Your task to perform on an android device: toggle improve location accuracy Image 0: 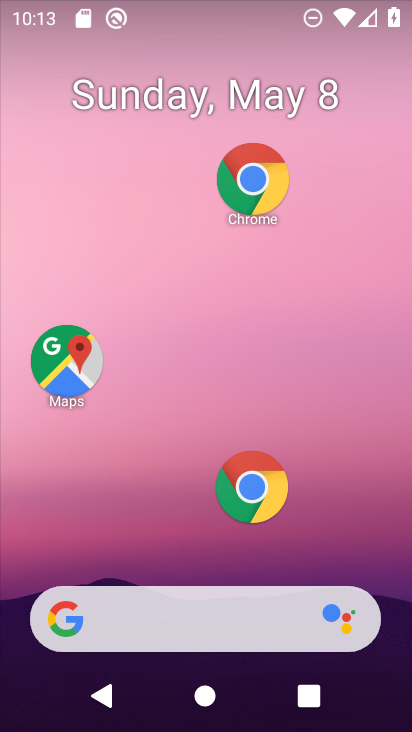
Step 0: drag from (181, 540) to (239, 21)
Your task to perform on an android device: toggle improve location accuracy Image 1: 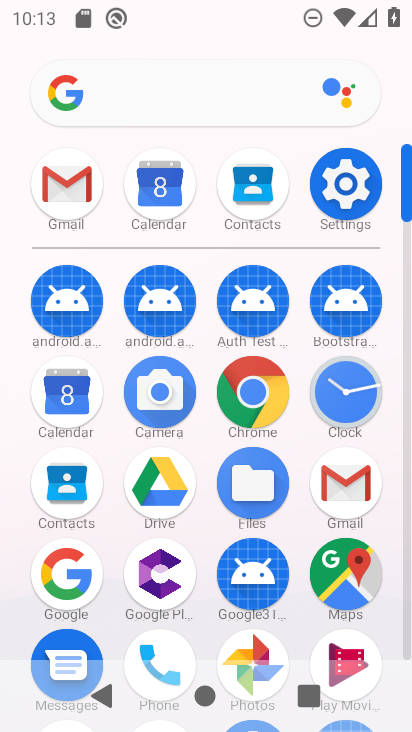
Step 1: click (344, 160)
Your task to perform on an android device: toggle improve location accuracy Image 2: 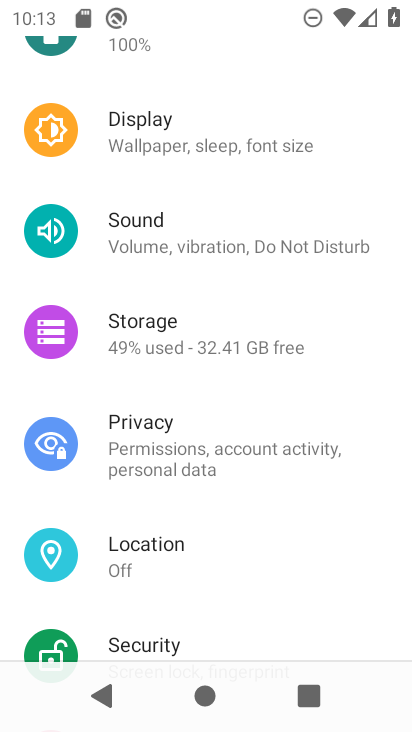
Step 2: click (250, 549)
Your task to perform on an android device: toggle improve location accuracy Image 3: 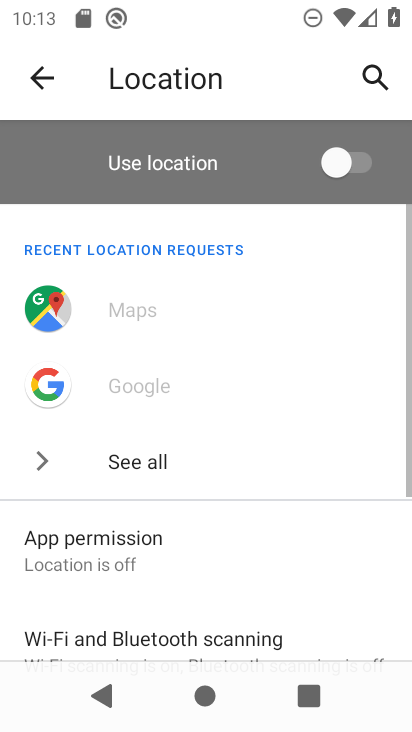
Step 3: drag from (226, 573) to (284, 44)
Your task to perform on an android device: toggle improve location accuracy Image 4: 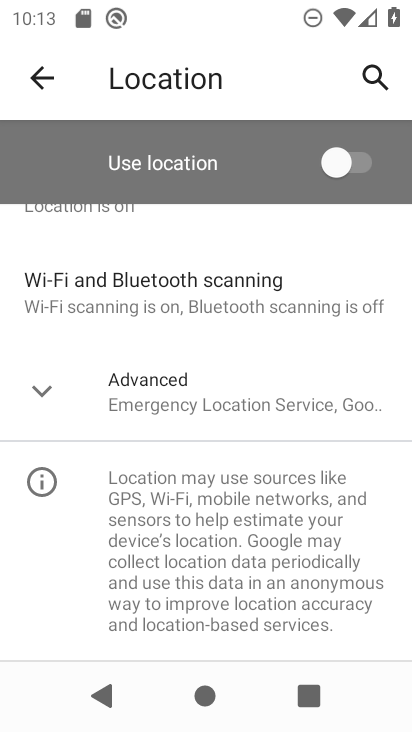
Step 4: click (45, 391)
Your task to perform on an android device: toggle improve location accuracy Image 5: 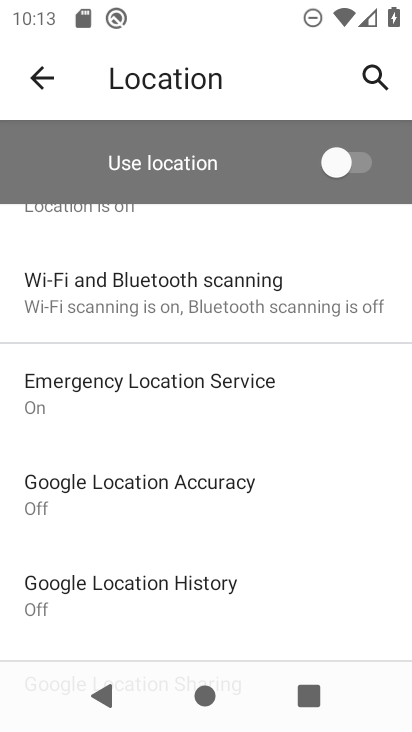
Step 5: click (207, 494)
Your task to perform on an android device: toggle improve location accuracy Image 6: 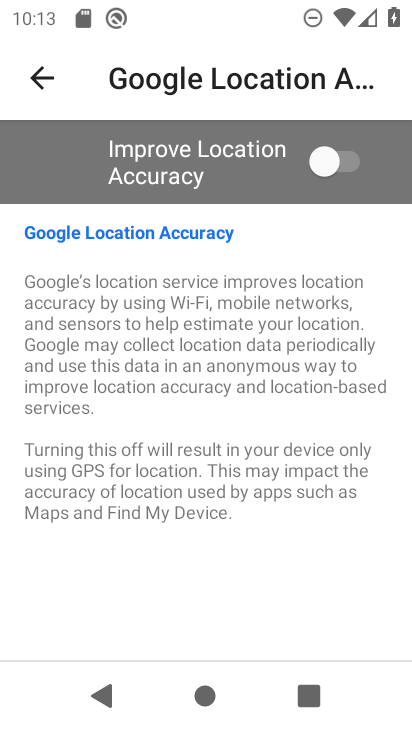
Step 6: click (346, 150)
Your task to perform on an android device: toggle improve location accuracy Image 7: 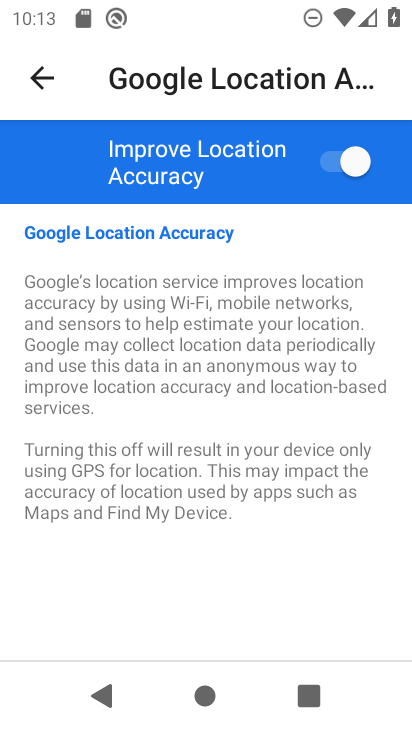
Step 7: task complete